Your task to perform on an android device: move a message to another label in the gmail app Image 0: 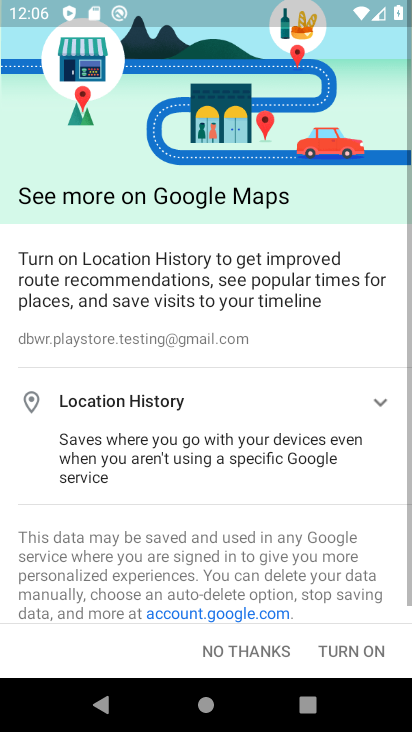
Step 0: press home button
Your task to perform on an android device: move a message to another label in the gmail app Image 1: 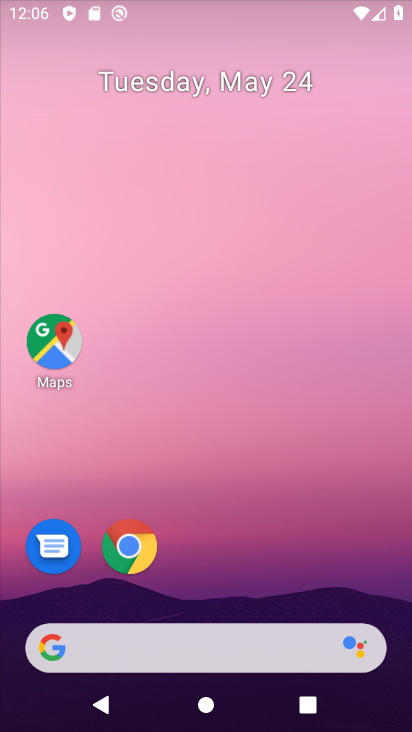
Step 1: drag from (333, 627) to (409, 623)
Your task to perform on an android device: move a message to another label in the gmail app Image 2: 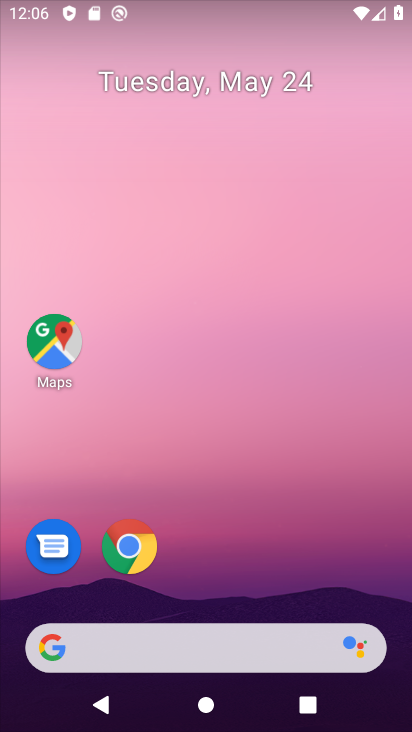
Step 2: drag from (301, 581) to (332, 15)
Your task to perform on an android device: move a message to another label in the gmail app Image 3: 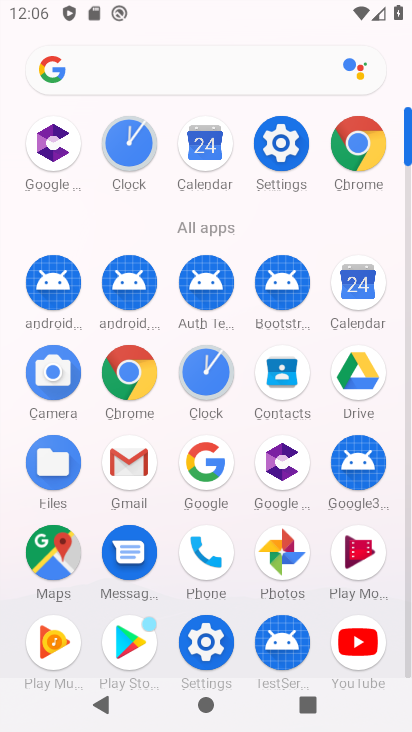
Step 3: click (123, 461)
Your task to perform on an android device: move a message to another label in the gmail app Image 4: 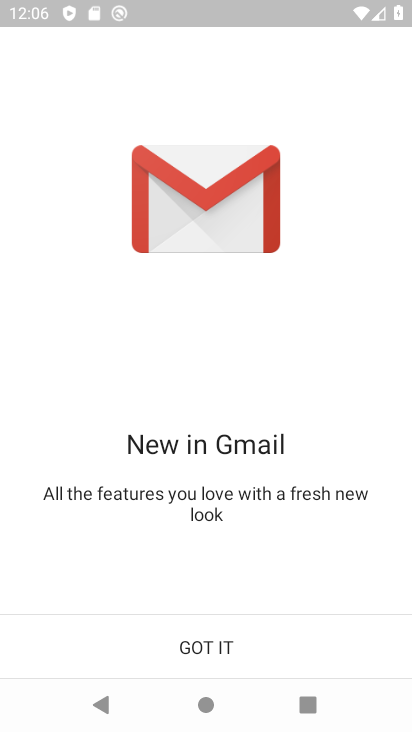
Step 4: click (192, 667)
Your task to perform on an android device: move a message to another label in the gmail app Image 5: 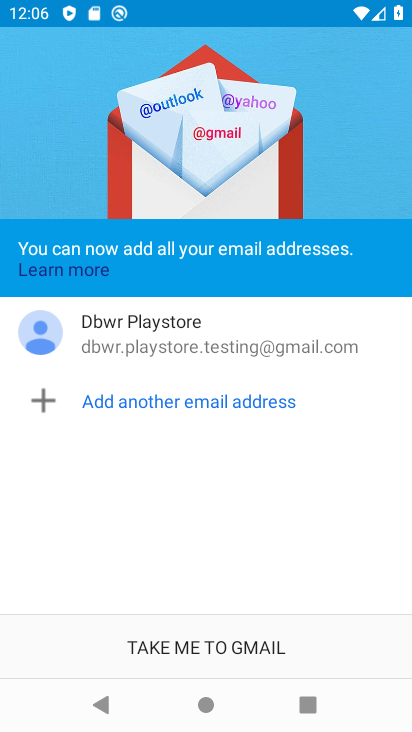
Step 5: click (175, 650)
Your task to perform on an android device: move a message to another label in the gmail app Image 6: 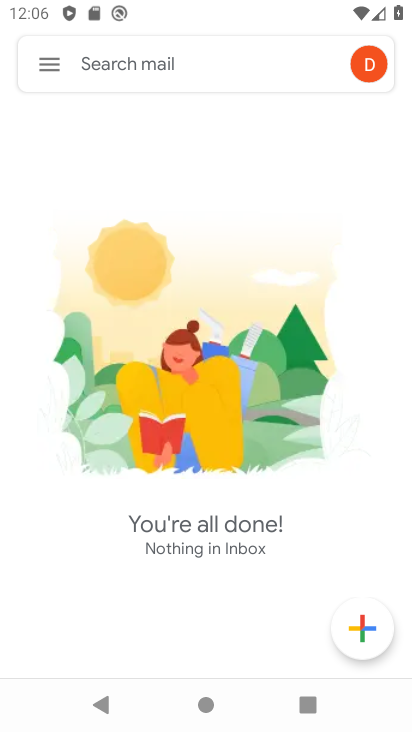
Step 6: task complete